Your task to perform on an android device: all mails in gmail Image 0: 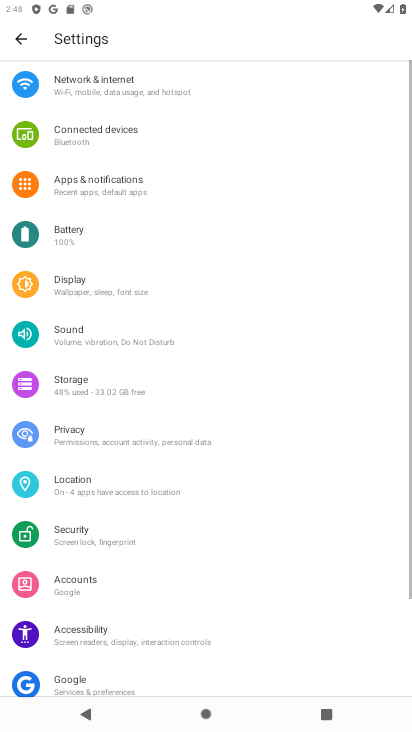
Step 0: press home button
Your task to perform on an android device: all mails in gmail Image 1: 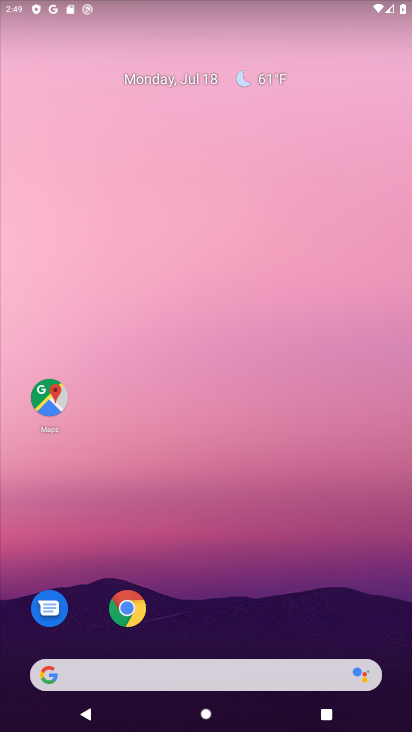
Step 1: drag from (281, 604) to (266, 8)
Your task to perform on an android device: all mails in gmail Image 2: 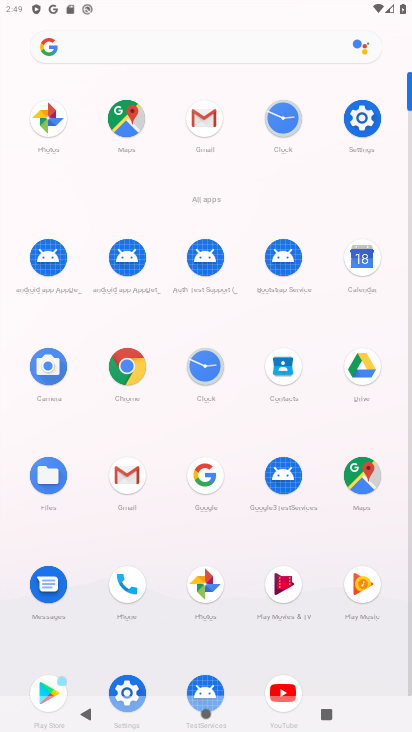
Step 2: click (199, 123)
Your task to perform on an android device: all mails in gmail Image 3: 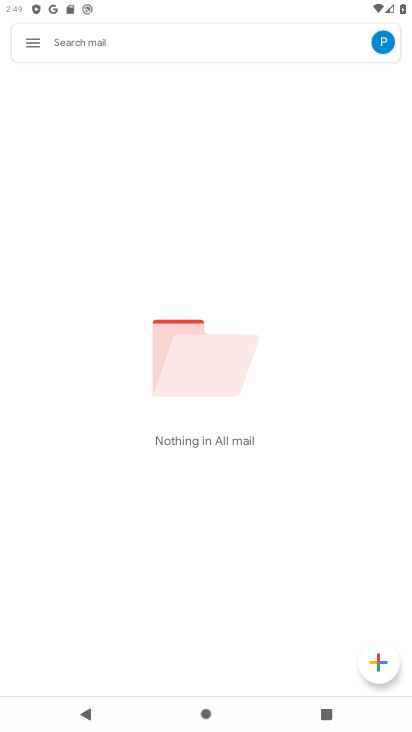
Step 3: task complete